Your task to perform on an android device: Do I have any events tomorrow? Image 0: 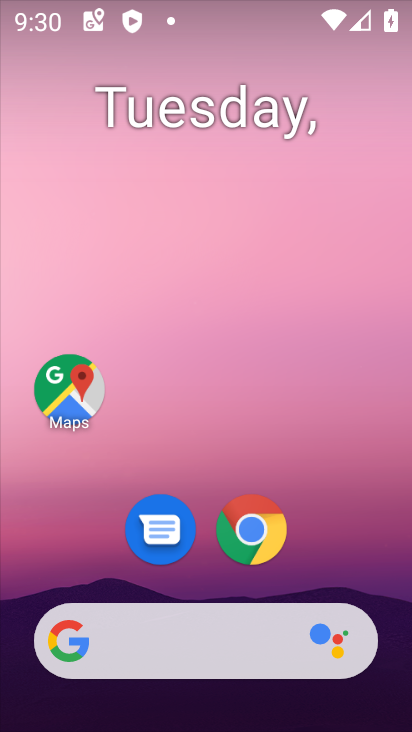
Step 0: drag from (265, 684) to (251, 227)
Your task to perform on an android device: Do I have any events tomorrow? Image 1: 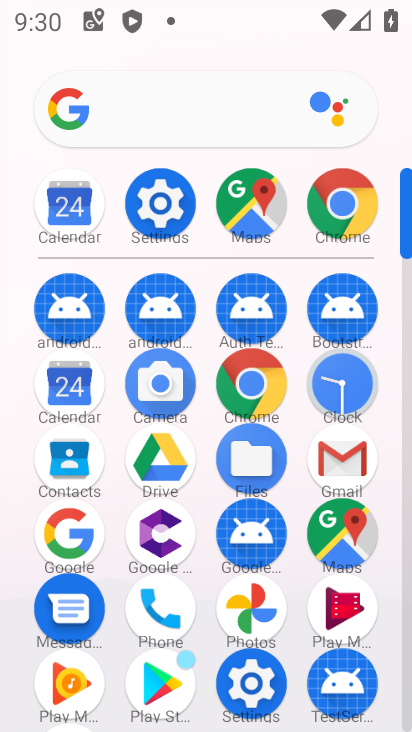
Step 1: click (89, 390)
Your task to perform on an android device: Do I have any events tomorrow? Image 2: 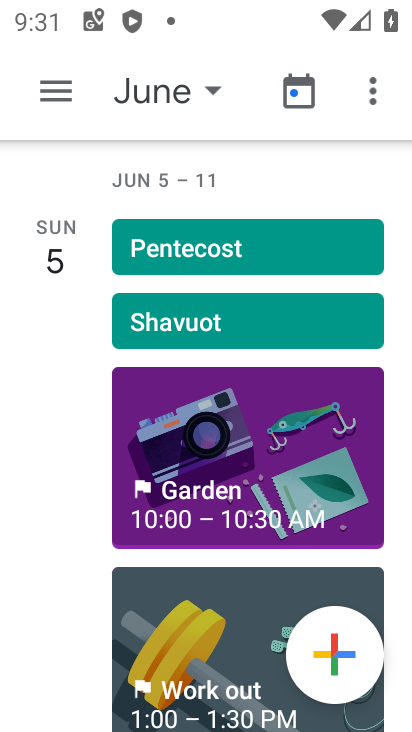
Step 2: click (184, 93)
Your task to perform on an android device: Do I have any events tomorrow? Image 3: 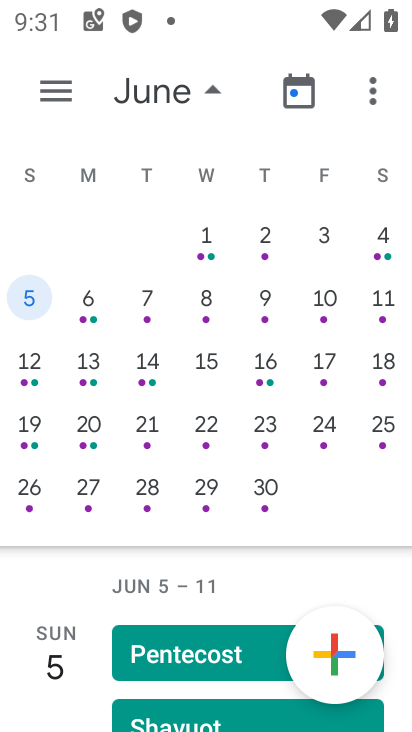
Step 3: drag from (63, 357) to (409, 398)
Your task to perform on an android device: Do I have any events tomorrow? Image 4: 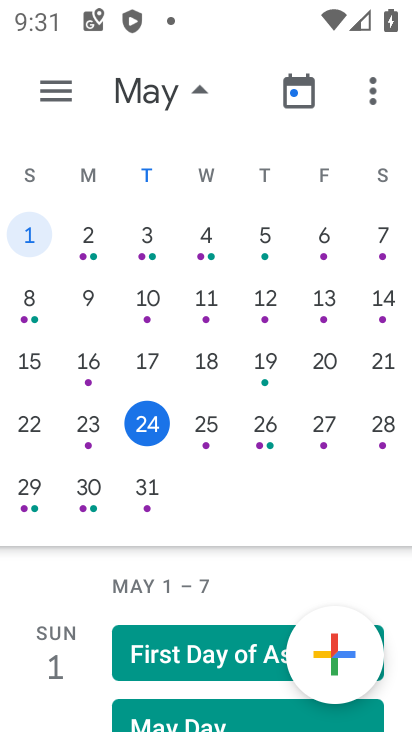
Step 4: drag from (285, 419) to (326, 428)
Your task to perform on an android device: Do I have any events tomorrow? Image 5: 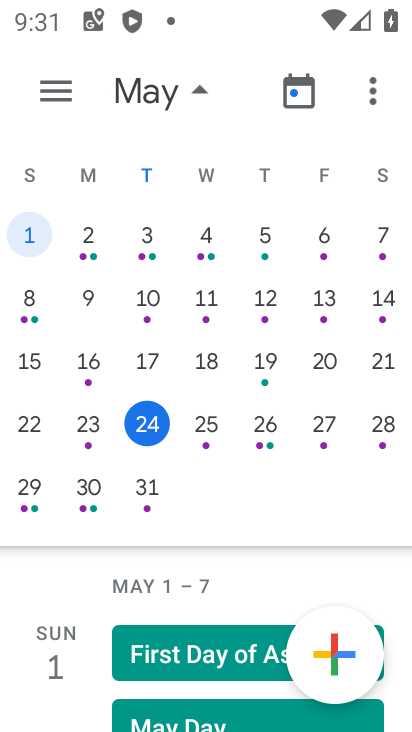
Step 5: click (268, 450)
Your task to perform on an android device: Do I have any events tomorrow? Image 6: 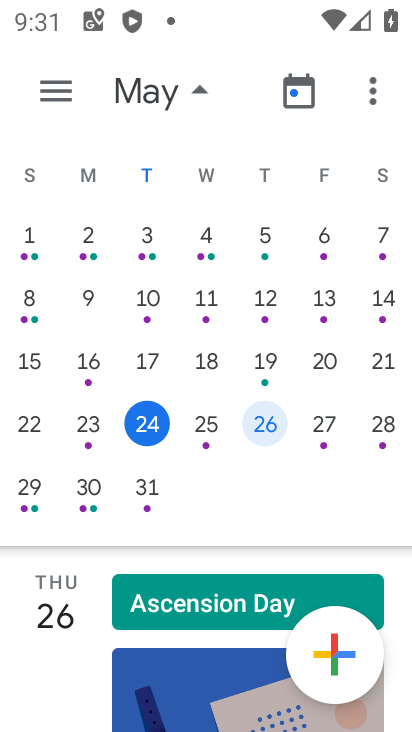
Step 6: task complete